Your task to perform on an android device: Open Google Image 0: 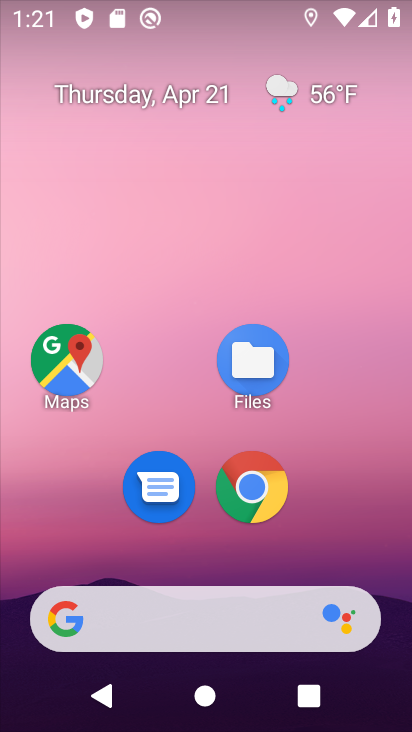
Step 0: drag from (354, 417) to (366, 88)
Your task to perform on an android device: Open Google Image 1: 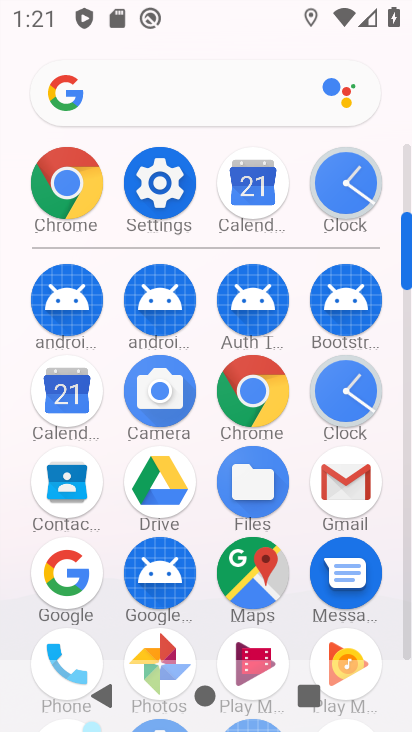
Step 1: click (63, 583)
Your task to perform on an android device: Open Google Image 2: 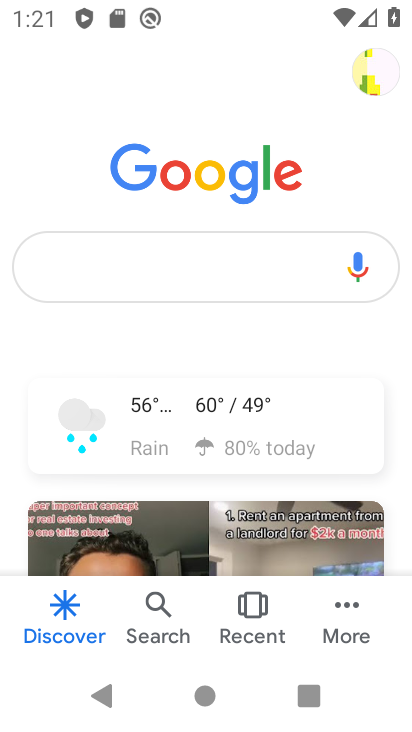
Step 2: task complete